Your task to perform on an android device: What's the weather going to be tomorrow? Image 0: 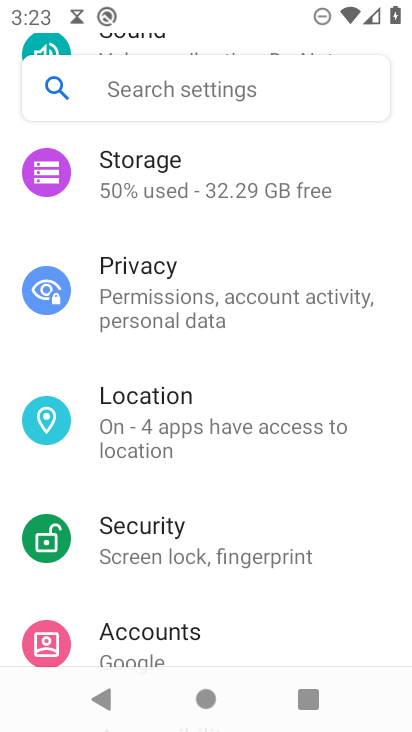
Step 0: press home button
Your task to perform on an android device: What's the weather going to be tomorrow? Image 1: 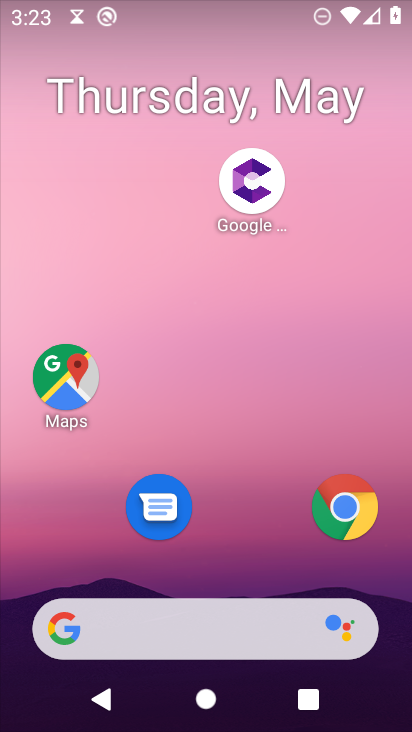
Step 1: click (66, 626)
Your task to perform on an android device: What's the weather going to be tomorrow? Image 2: 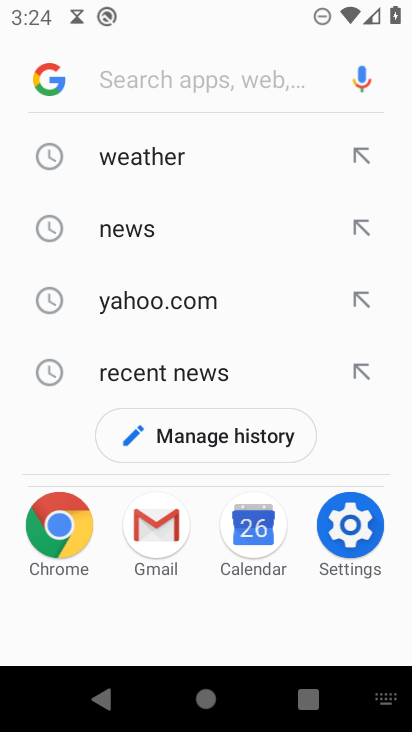
Step 2: type "weather going to be tomorrow"
Your task to perform on an android device: What's the weather going to be tomorrow? Image 3: 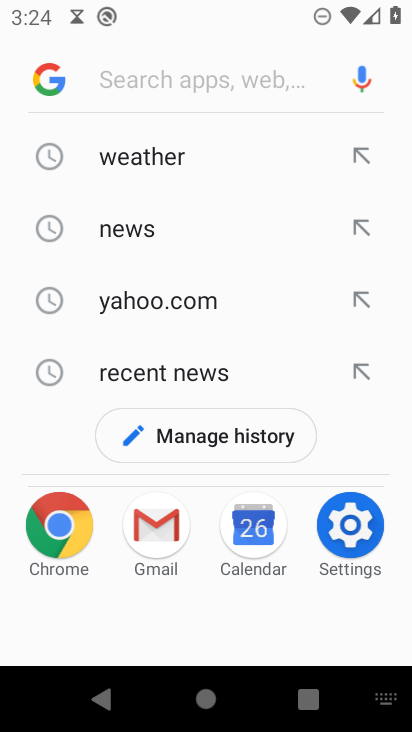
Step 3: click (150, 85)
Your task to perform on an android device: What's the weather going to be tomorrow? Image 4: 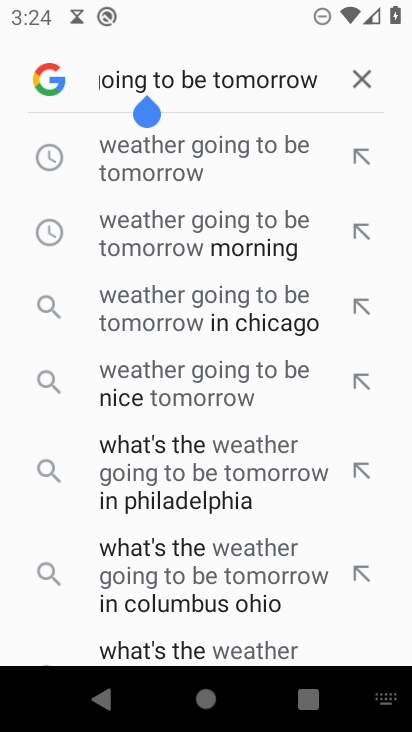
Step 4: click (177, 158)
Your task to perform on an android device: What's the weather going to be tomorrow? Image 5: 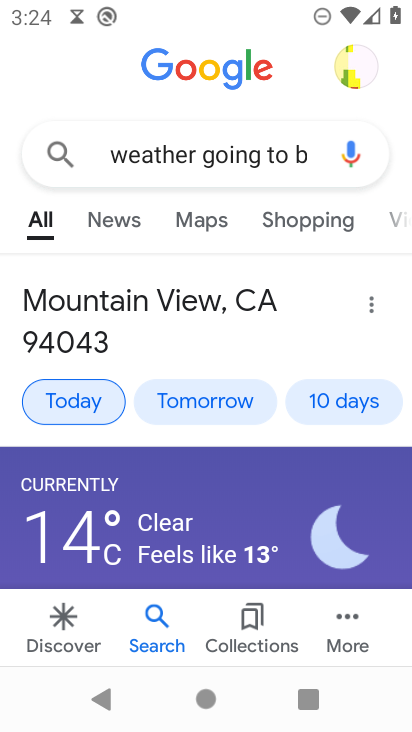
Step 5: task complete